Your task to perform on an android device: Is it going to rain today? Image 0: 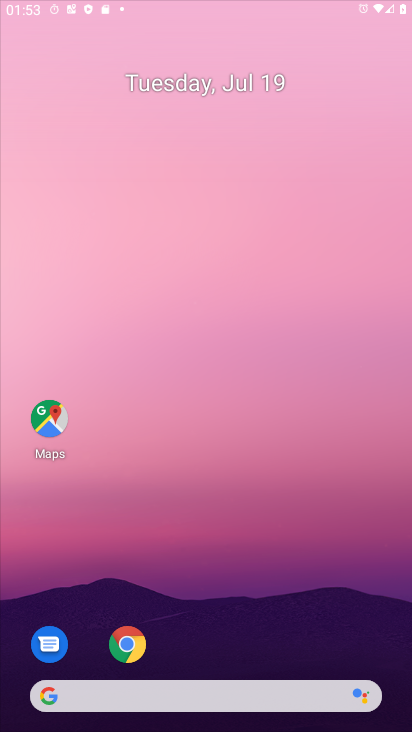
Step 0: click (255, 154)
Your task to perform on an android device: Is it going to rain today? Image 1: 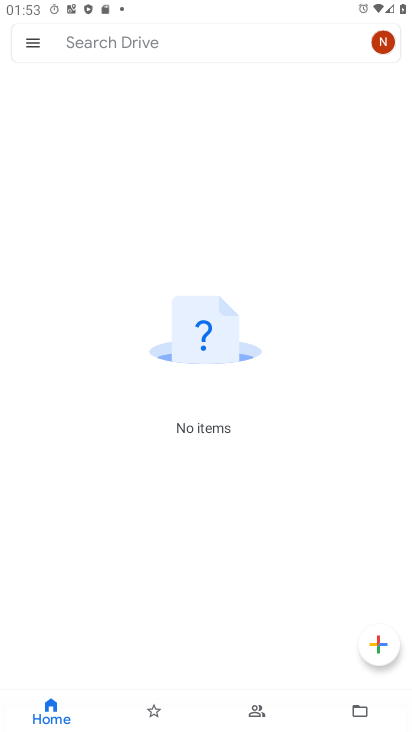
Step 1: press home button
Your task to perform on an android device: Is it going to rain today? Image 2: 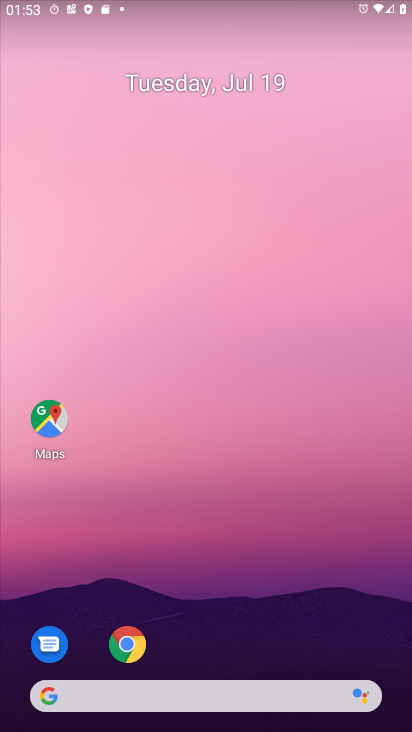
Step 2: drag from (201, 731) to (181, 186)
Your task to perform on an android device: Is it going to rain today? Image 3: 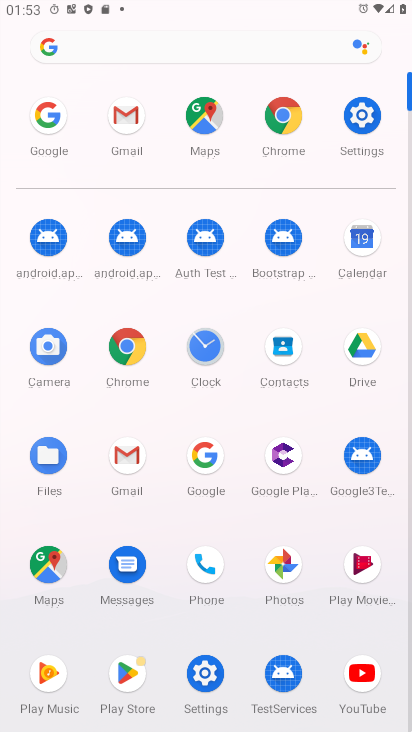
Step 3: click (202, 453)
Your task to perform on an android device: Is it going to rain today? Image 4: 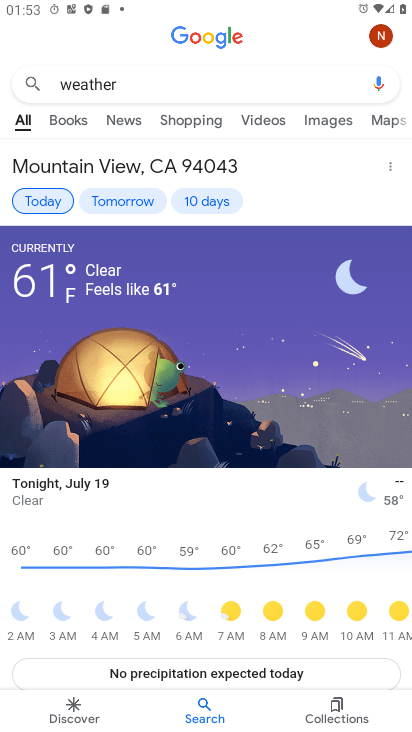
Step 4: click (45, 196)
Your task to perform on an android device: Is it going to rain today? Image 5: 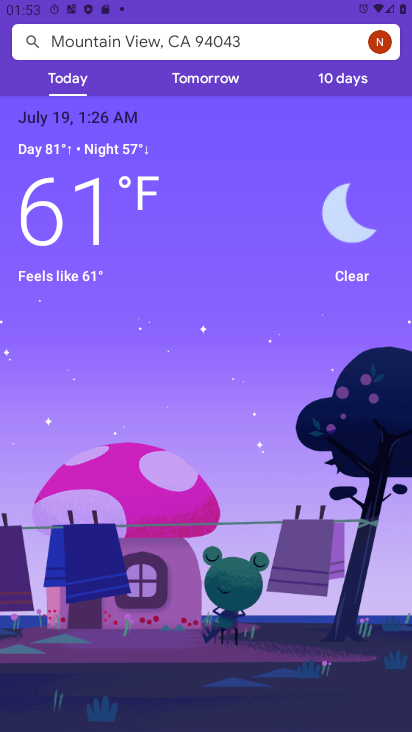
Step 5: task complete